Your task to perform on an android device: turn on bluetooth scan Image 0: 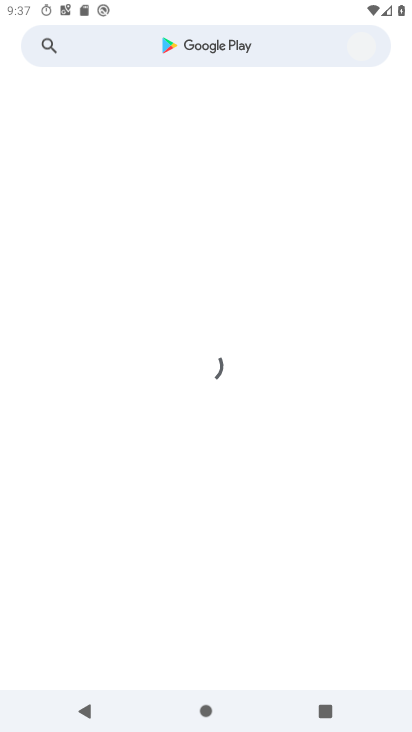
Step 0: press home button
Your task to perform on an android device: turn on bluetooth scan Image 1: 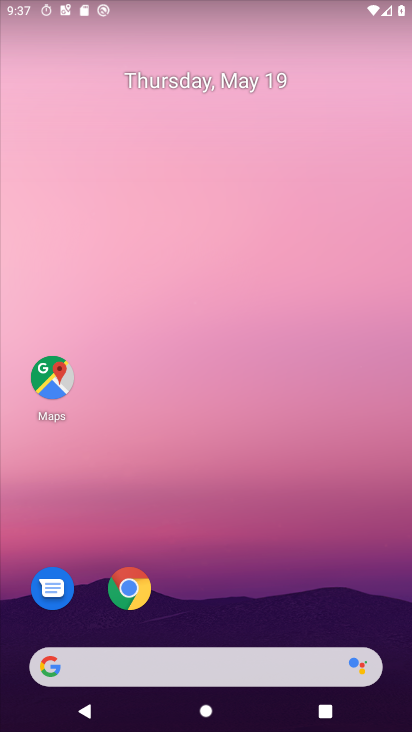
Step 1: drag from (161, 664) to (312, 94)
Your task to perform on an android device: turn on bluetooth scan Image 2: 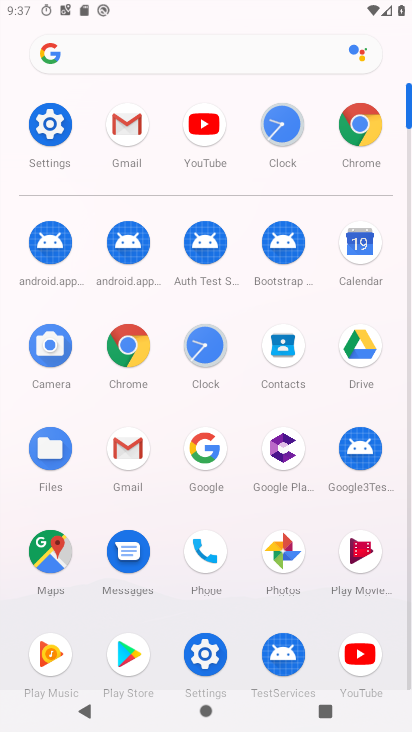
Step 2: click (52, 131)
Your task to perform on an android device: turn on bluetooth scan Image 3: 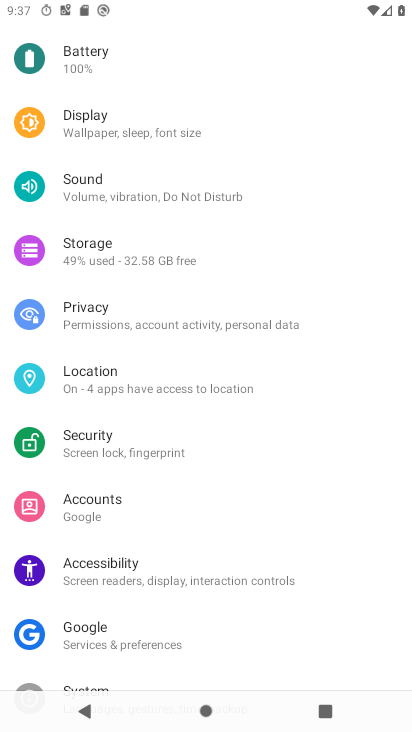
Step 3: click (118, 377)
Your task to perform on an android device: turn on bluetooth scan Image 4: 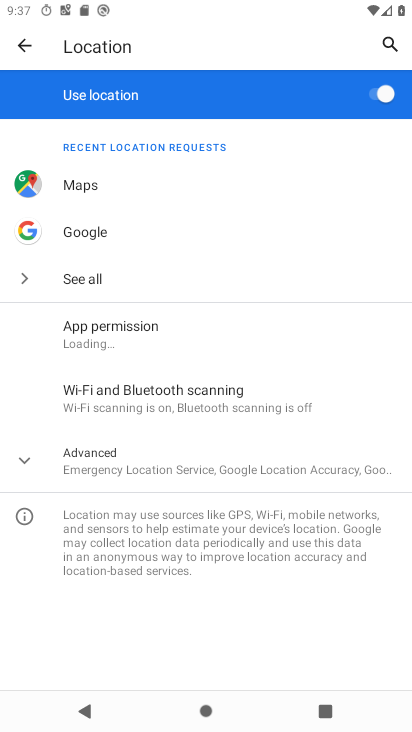
Step 4: click (197, 401)
Your task to perform on an android device: turn on bluetooth scan Image 5: 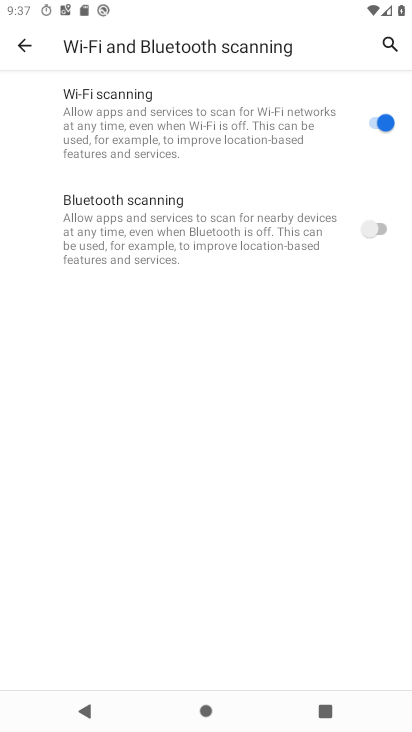
Step 5: click (381, 222)
Your task to perform on an android device: turn on bluetooth scan Image 6: 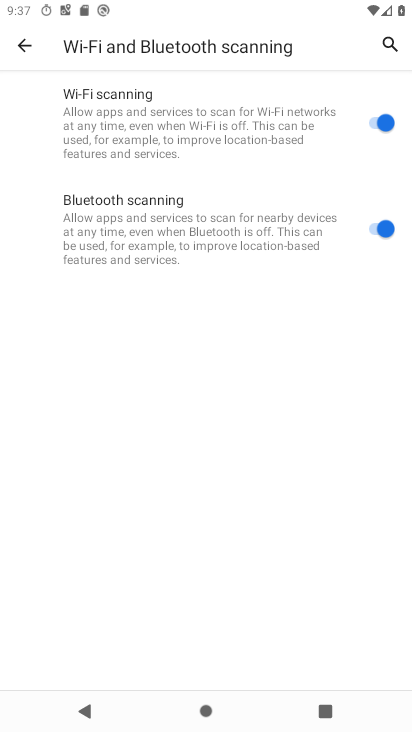
Step 6: task complete